Your task to perform on an android device: install app "Grab" Image 0: 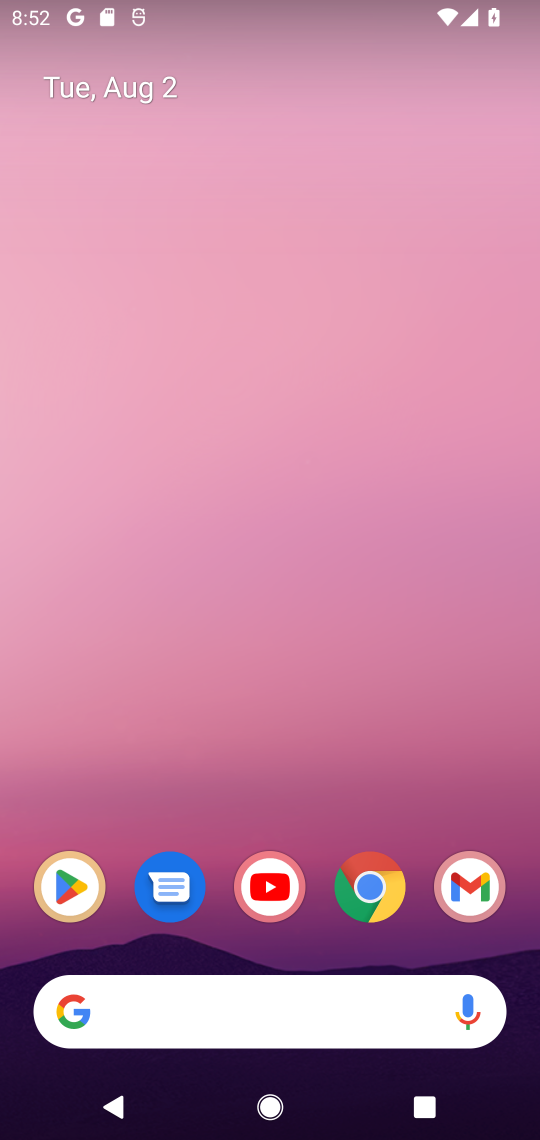
Step 0: click (63, 903)
Your task to perform on an android device: install app "Grab" Image 1: 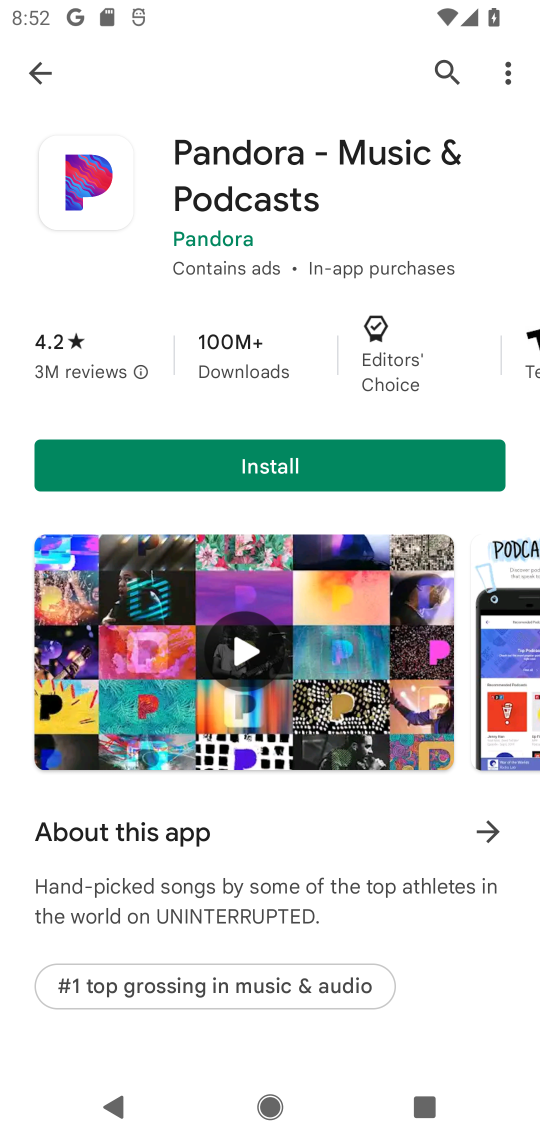
Step 1: click (443, 58)
Your task to perform on an android device: install app "Grab" Image 2: 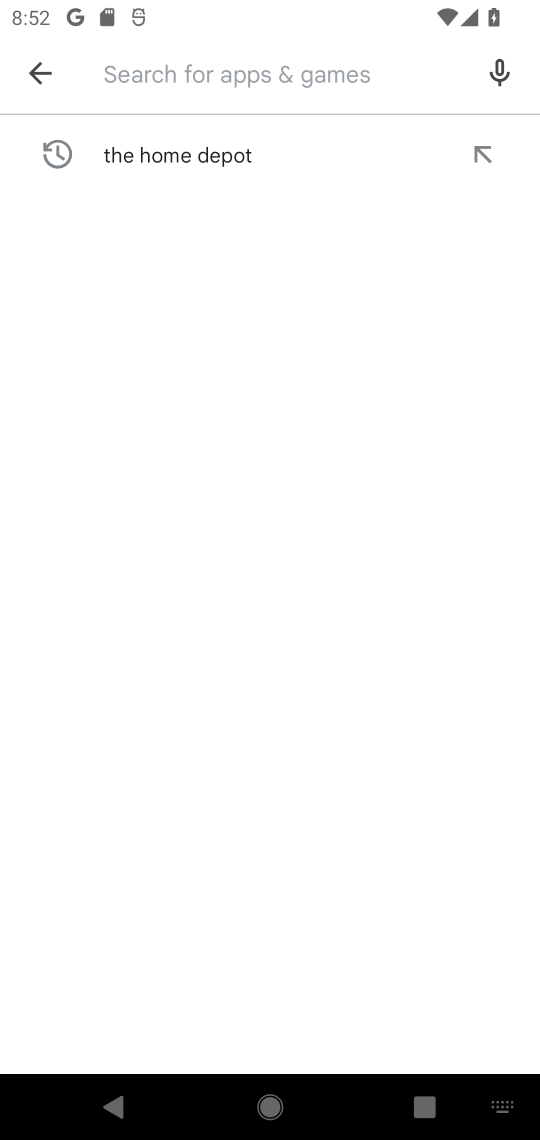
Step 2: type "grab"
Your task to perform on an android device: install app "Grab" Image 3: 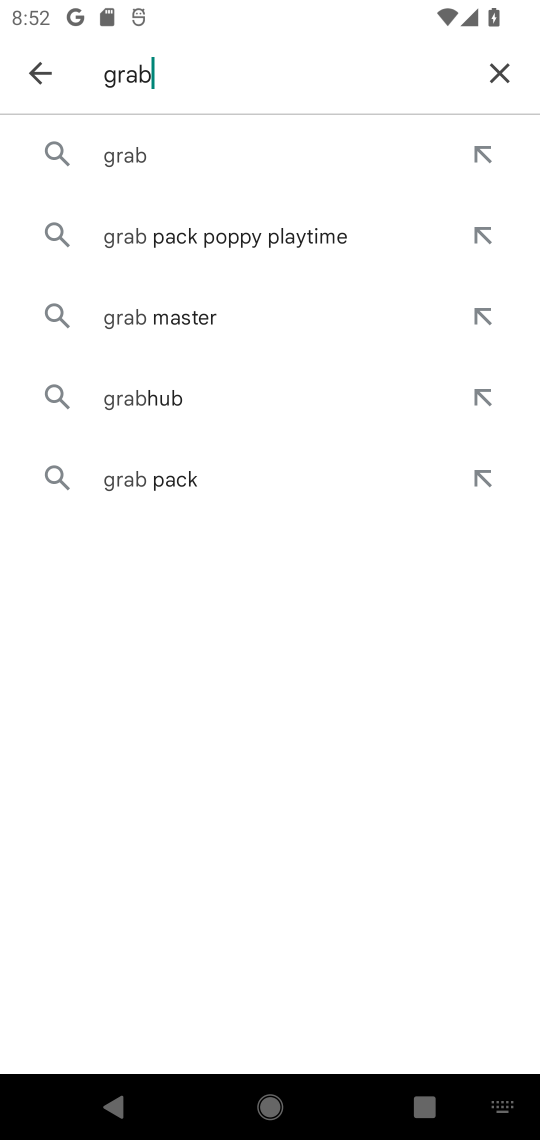
Step 3: click (222, 159)
Your task to perform on an android device: install app "Grab" Image 4: 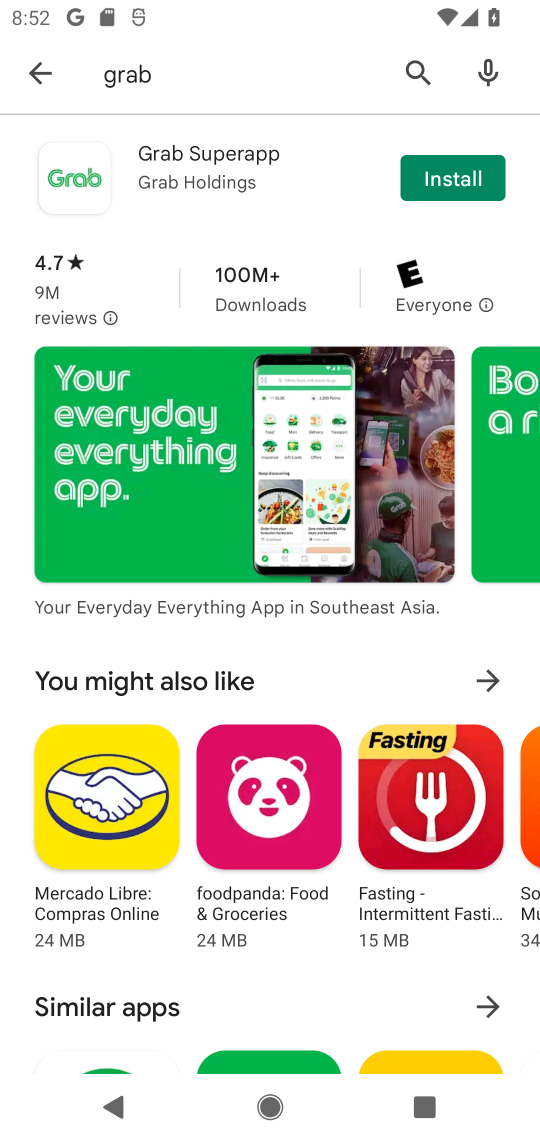
Step 4: click (149, 142)
Your task to perform on an android device: install app "Grab" Image 5: 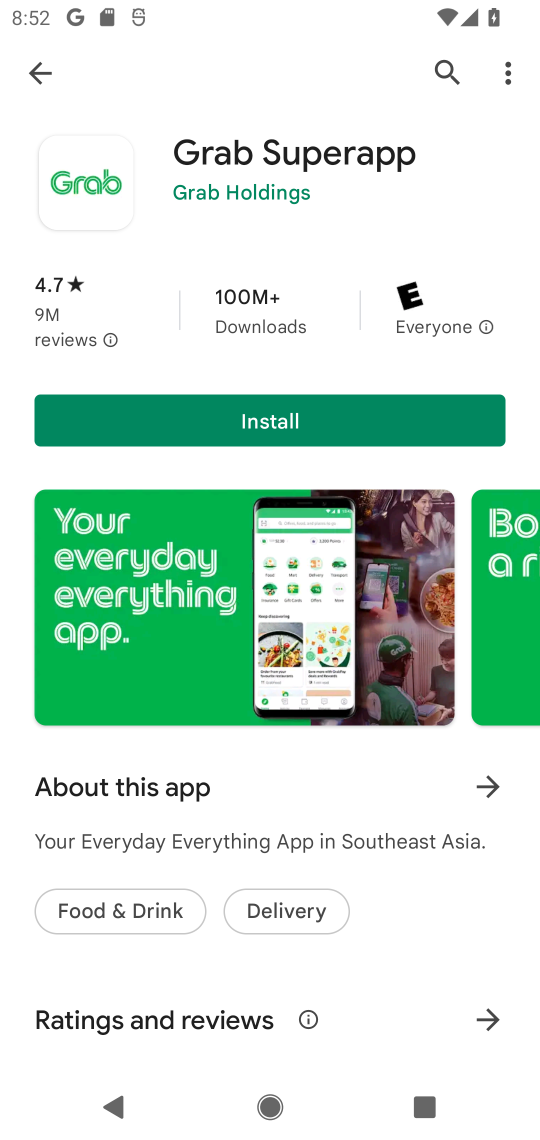
Step 5: click (283, 408)
Your task to perform on an android device: install app "Grab" Image 6: 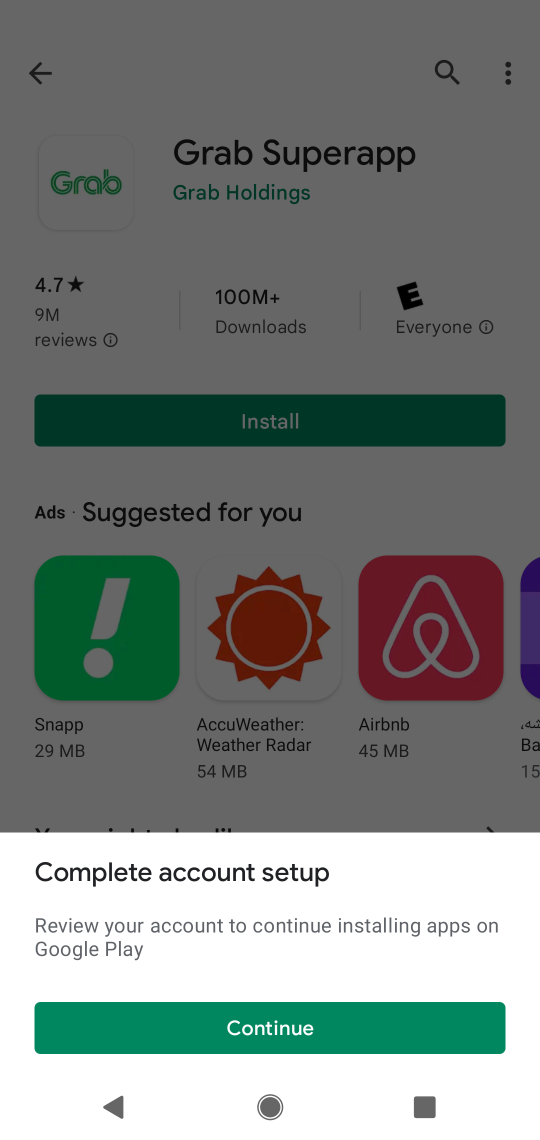
Step 6: click (301, 1032)
Your task to perform on an android device: install app "Grab" Image 7: 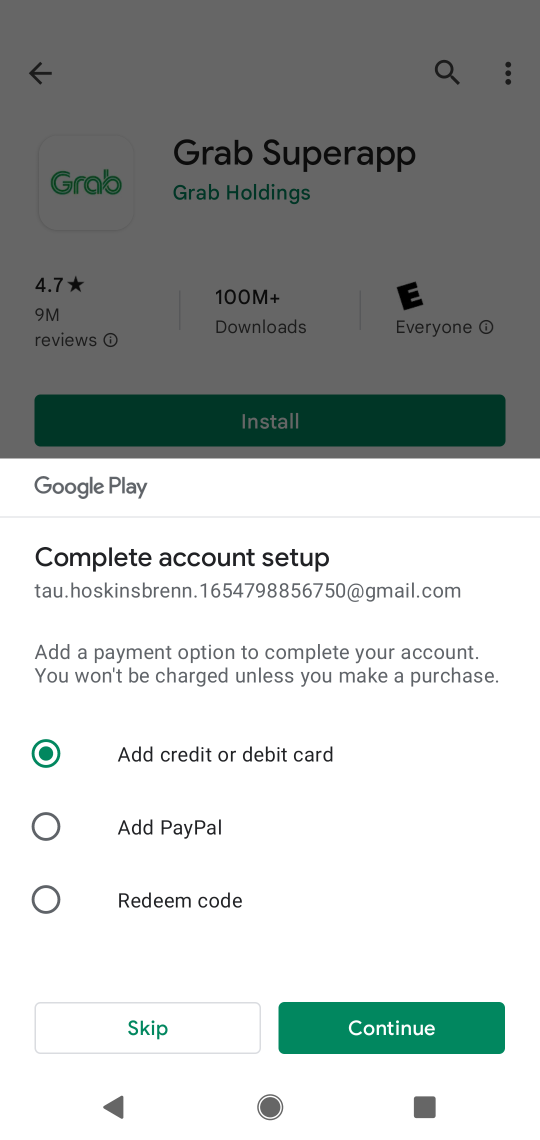
Step 7: click (165, 1033)
Your task to perform on an android device: install app "Grab" Image 8: 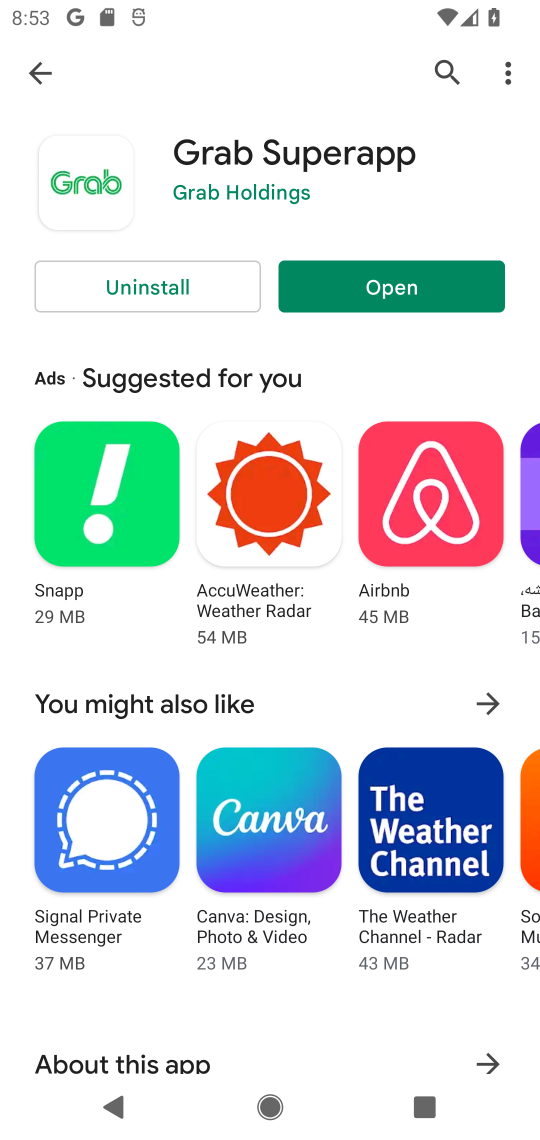
Step 8: task complete